Your task to perform on an android device: Go to Wikipedia Image 0: 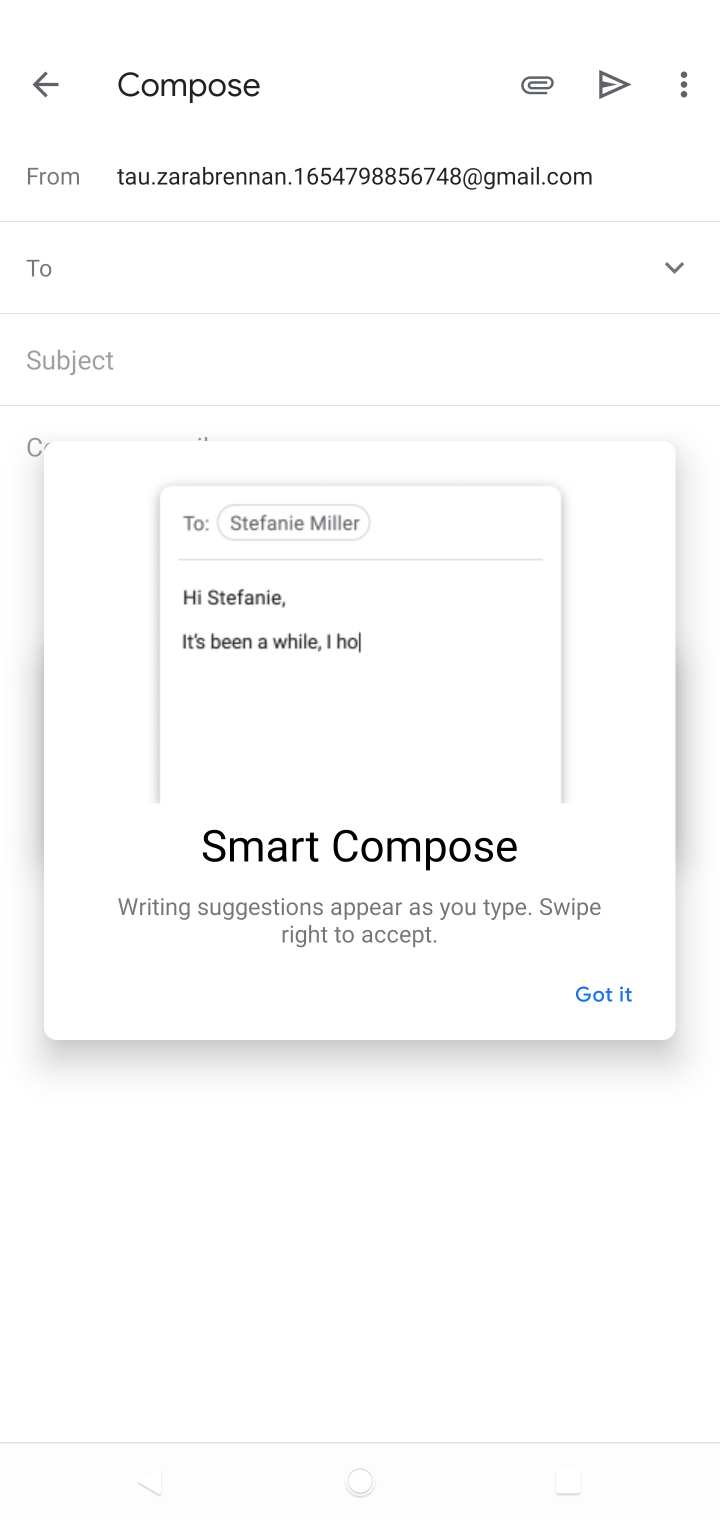
Step 0: press home button
Your task to perform on an android device: Go to Wikipedia Image 1: 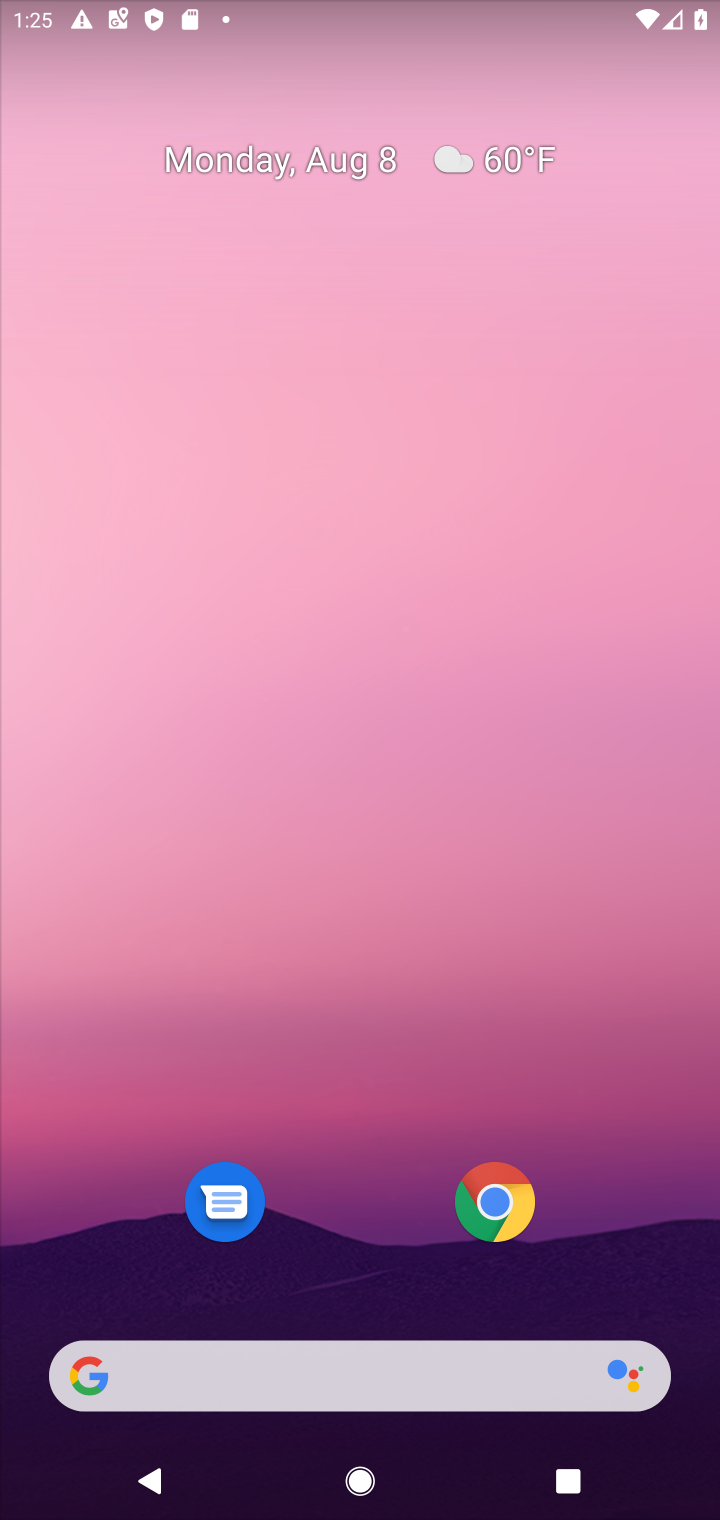
Step 1: drag from (352, 1281) to (483, 374)
Your task to perform on an android device: Go to Wikipedia Image 2: 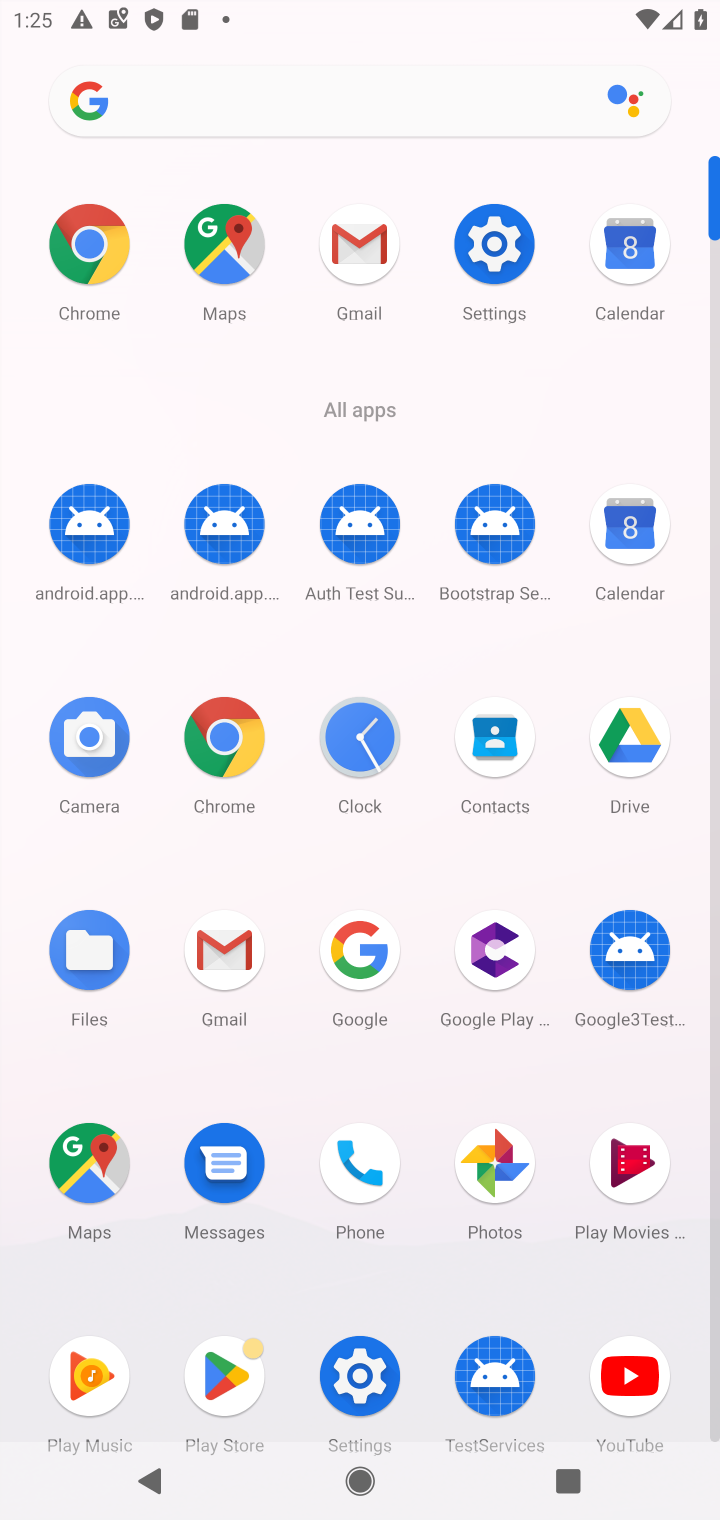
Step 2: click (210, 743)
Your task to perform on an android device: Go to Wikipedia Image 3: 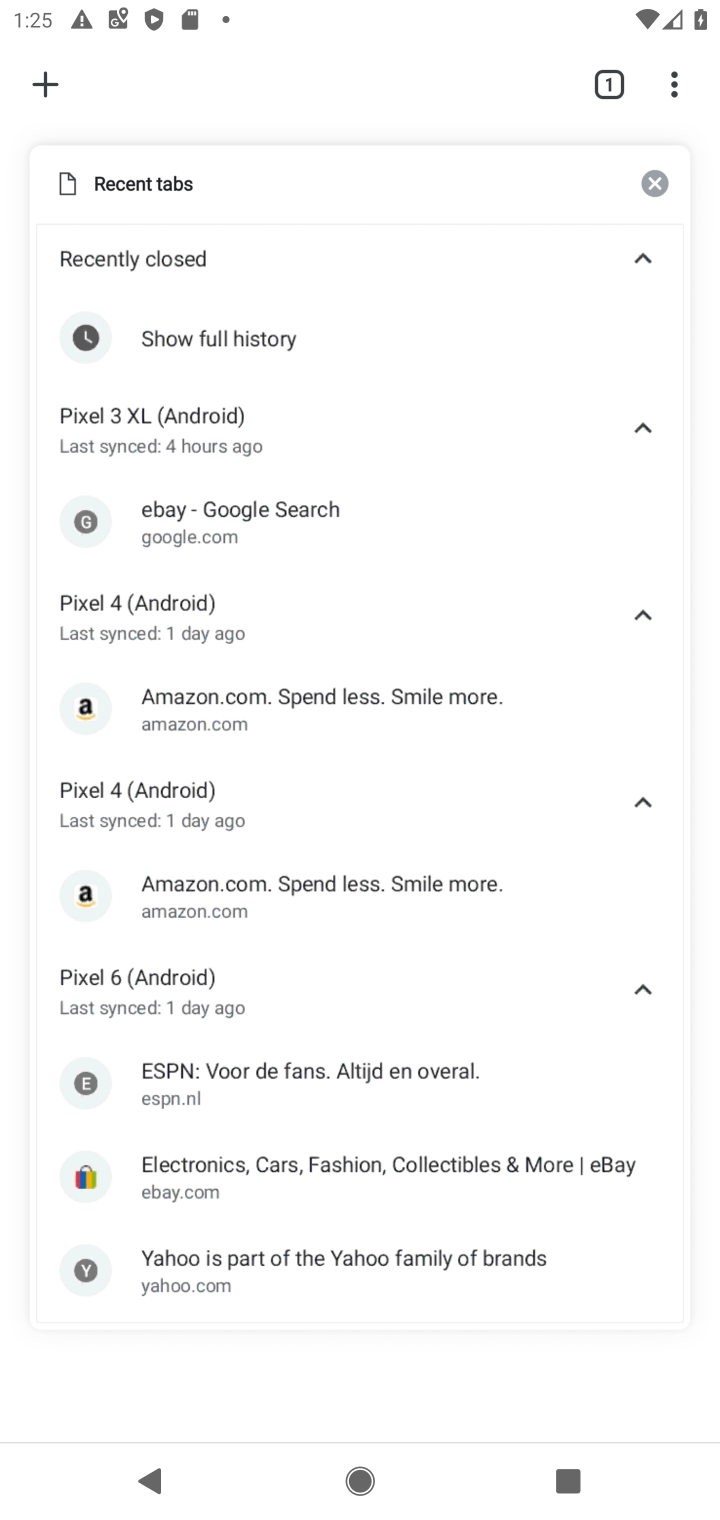
Step 3: press back button
Your task to perform on an android device: Go to Wikipedia Image 4: 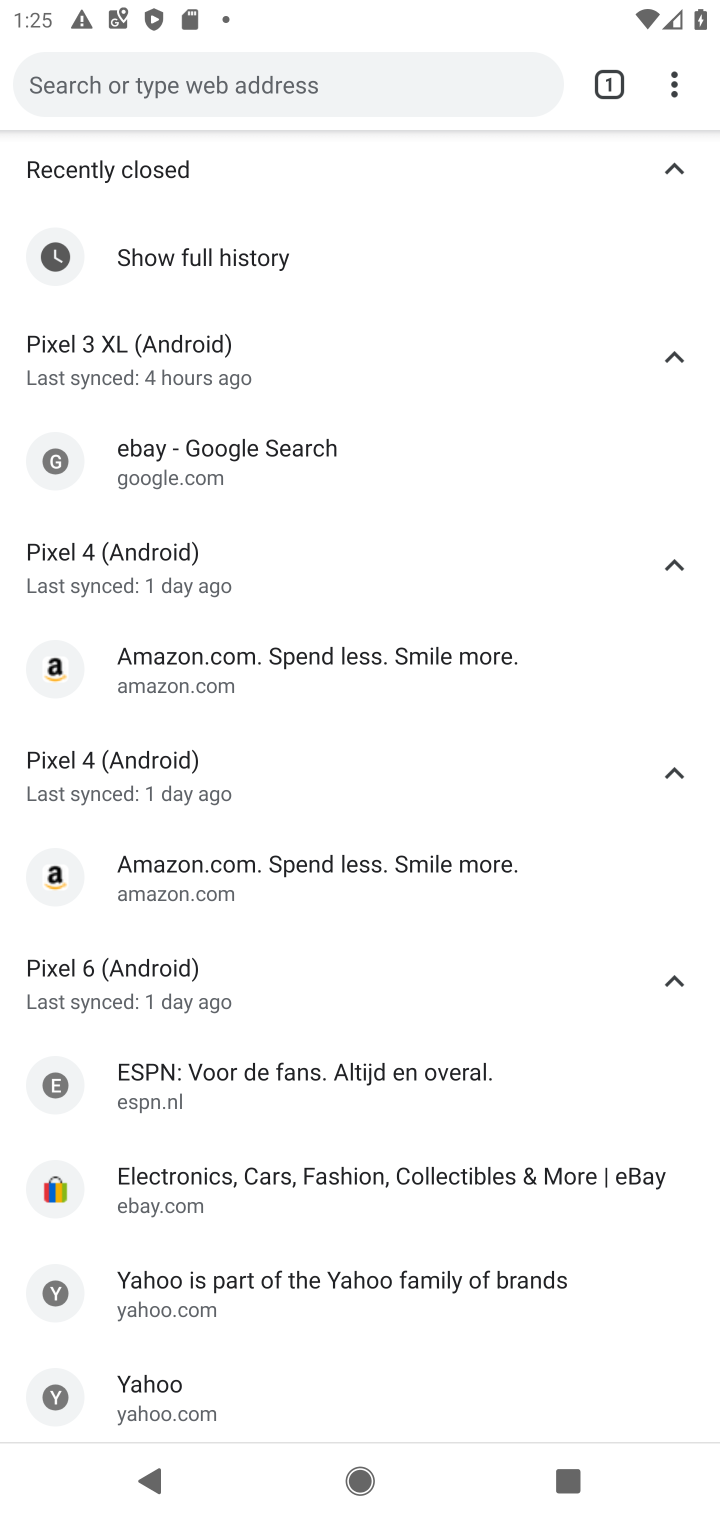
Step 4: click (367, 80)
Your task to perform on an android device: Go to Wikipedia Image 5: 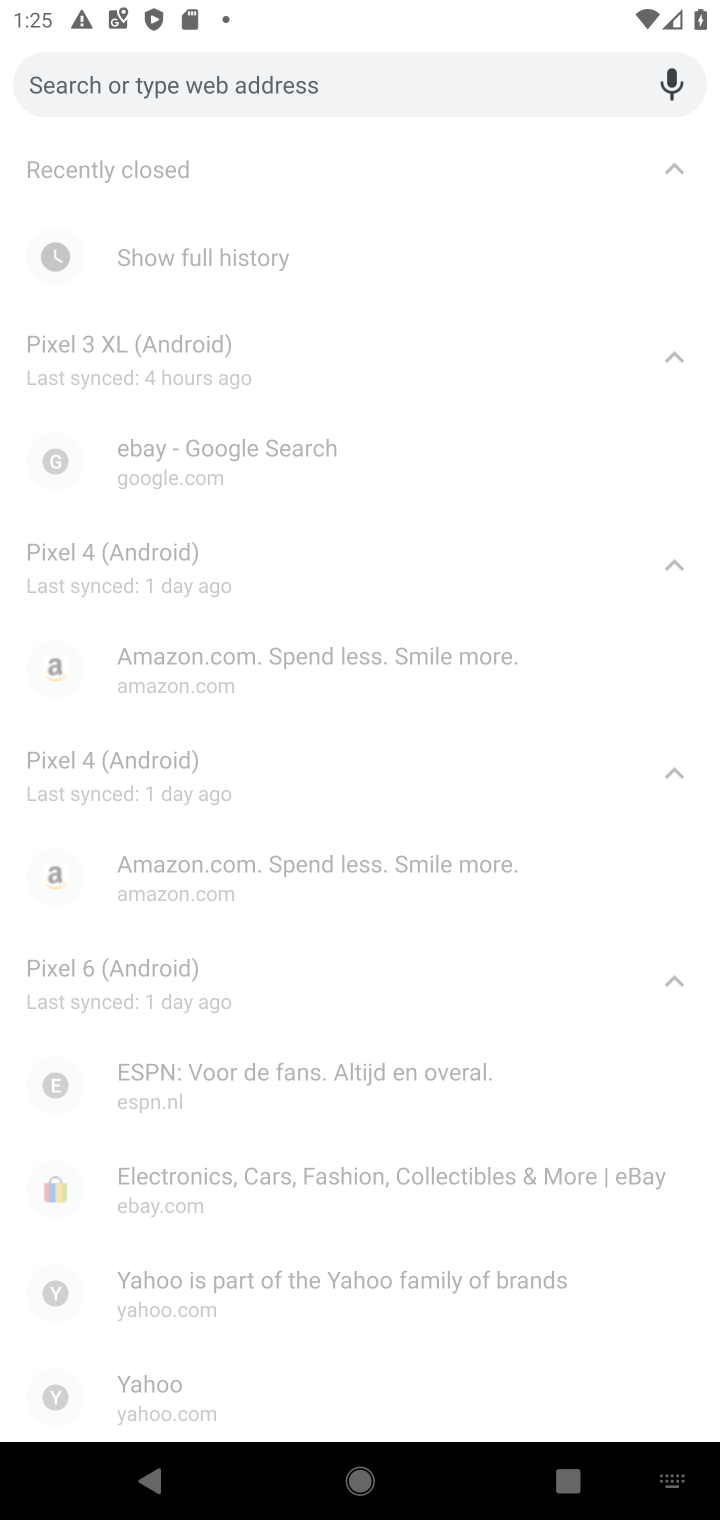
Step 5: type "wikipedia"
Your task to perform on an android device: Go to Wikipedia Image 6: 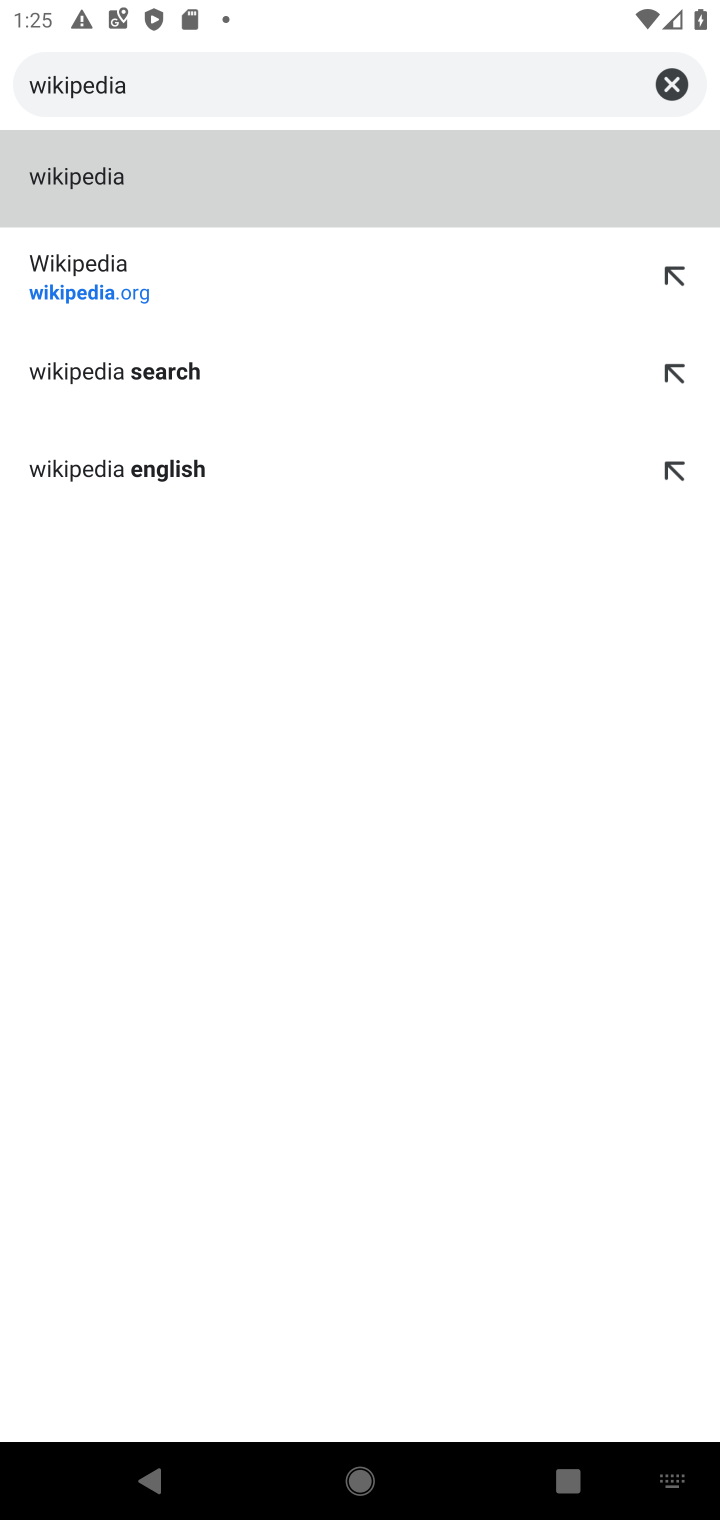
Step 6: click (199, 284)
Your task to perform on an android device: Go to Wikipedia Image 7: 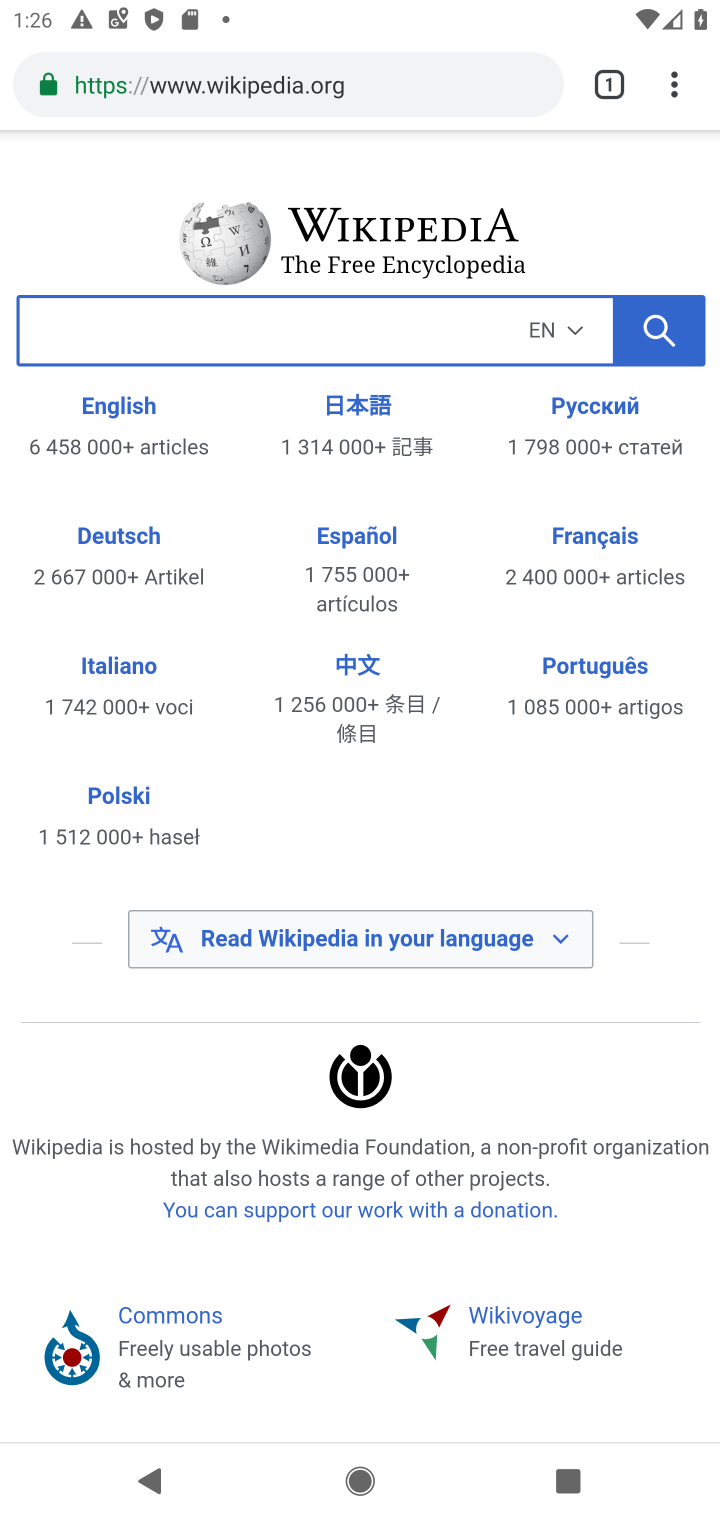
Step 7: task complete